Your task to perform on an android device: Go to privacy settings Image 0: 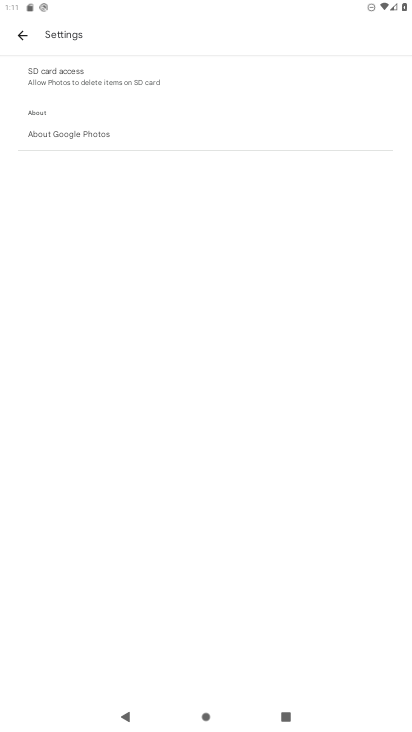
Step 0: press home button
Your task to perform on an android device: Go to privacy settings Image 1: 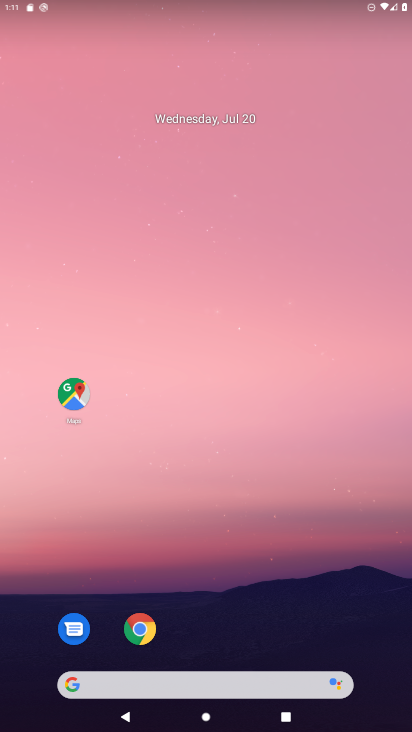
Step 1: drag from (195, 644) to (207, 46)
Your task to perform on an android device: Go to privacy settings Image 2: 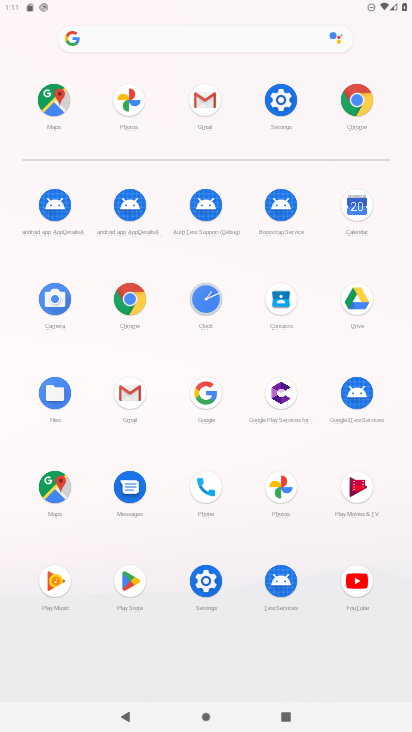
Step 2: click (280, 103)
Your task to perform on an android device: Go to privacy settings Image 3: 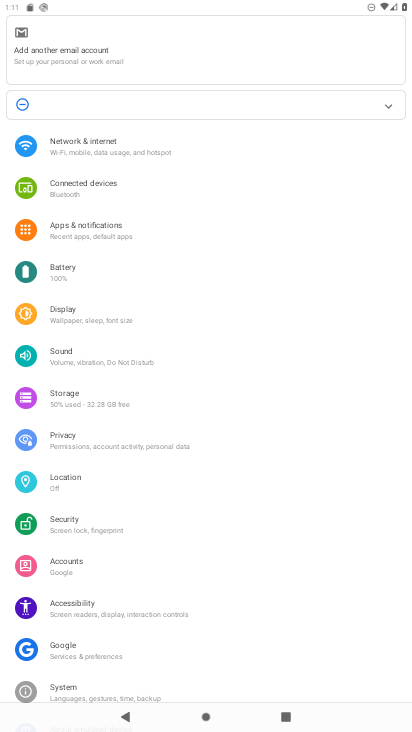
Step 3: click (94, 440)
Your task to perform on an android device: Go to privacy settings Image 4: 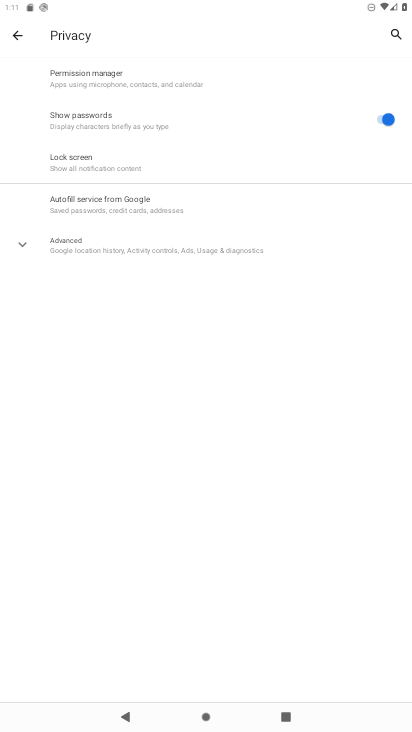
Step 4: task complete